Your task to perform on an android device: Open the web browser Image 0: 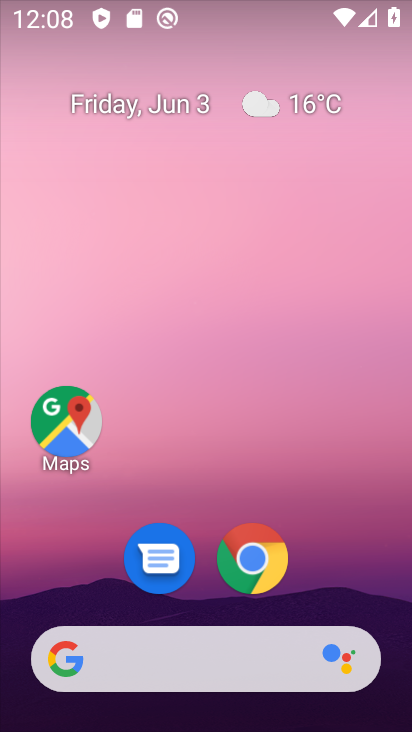
Step 0: drag from (359, 567) to (357, 145)
Your task to perform on an android device: Open the web browser Image 1: 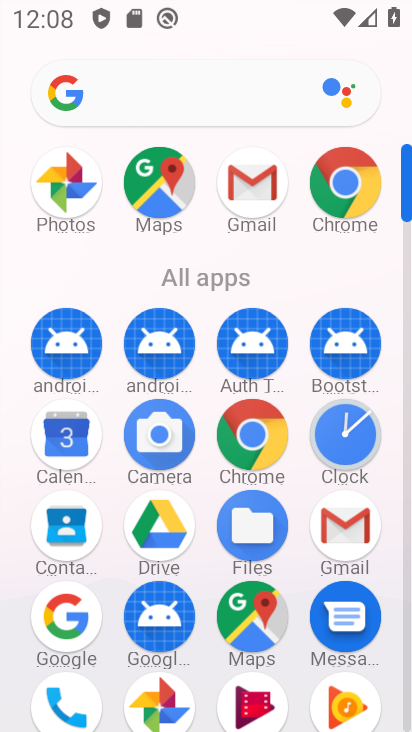
Step 1: click (251, 436)
Your task to perform on an android device: Open the web browser Image 2: 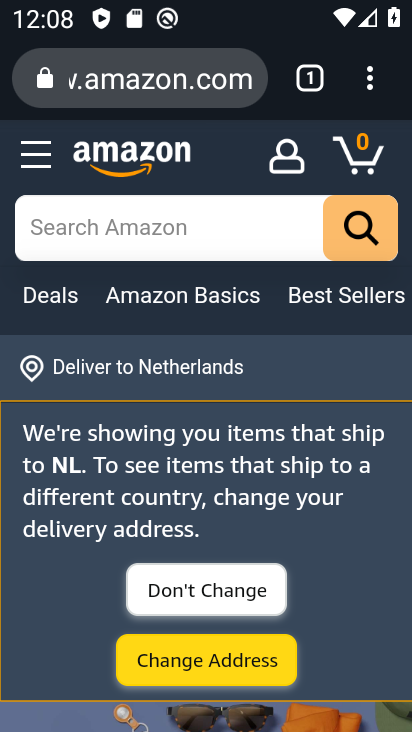
Step 2: task complete